Your task to perform on an android device: Open Google Maps Image 0: 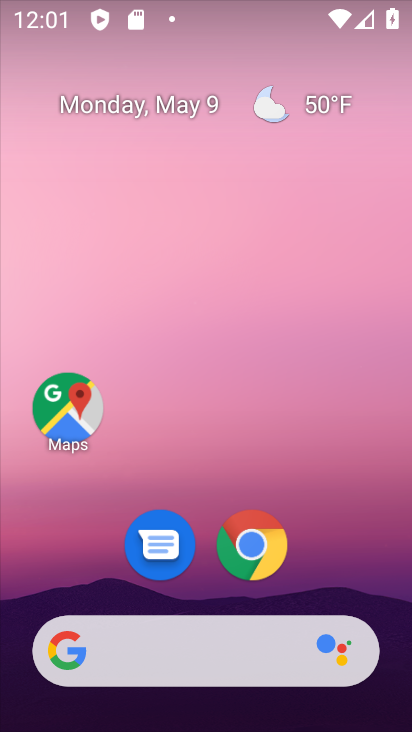
Step 0: click (83, 399)
Your task to perform on an android device: Open Google Maps Image 1: 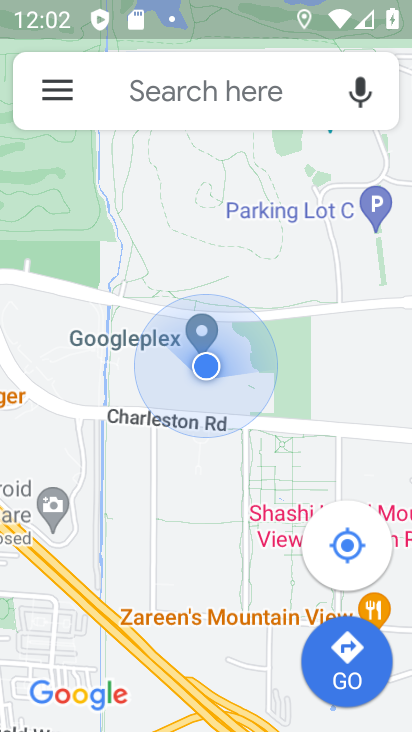
Step 1: task complete